Your task to perform on an android device: turn off notifications in google photos Image 0: 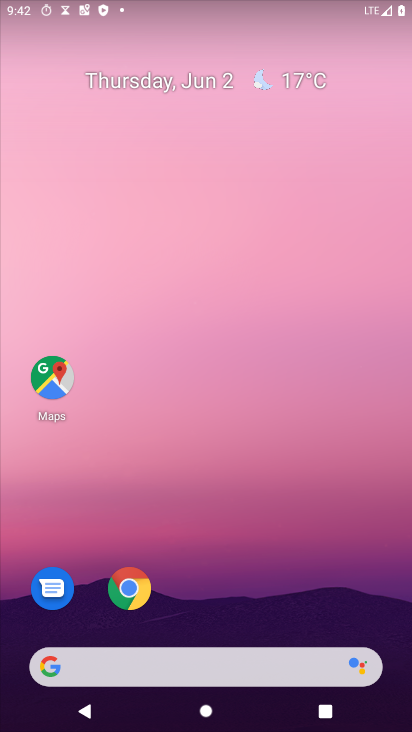
Step 0: drag from (197, 619) to (257, 14)
Your task to perform on an android device: turn off notifications in google photos Image 1: 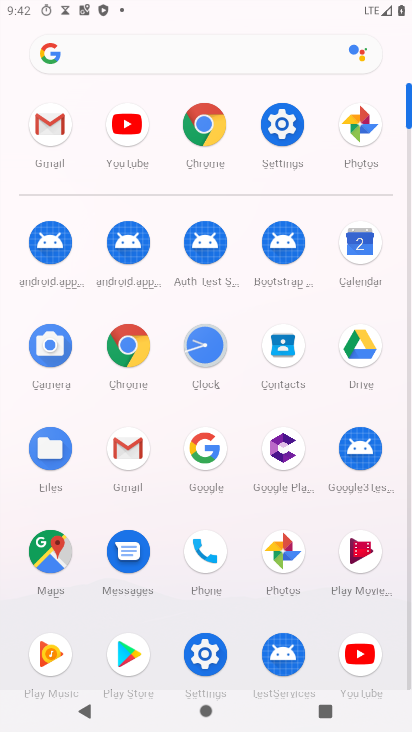
Step 1: click (282, 552)
Your task to perform on an android device: turn off notifications in google photos Image 2: 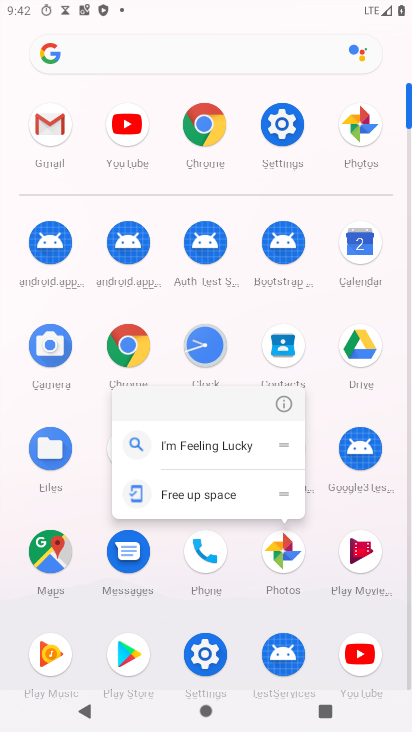
Step 2: click (285, 404)
Your task to perform on an android device: turn off notifications in google photos Image 3: 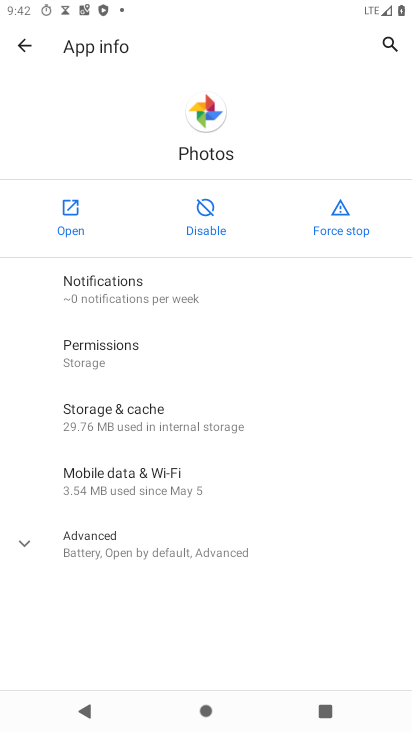
Step 3: click (155, 283)
Your task to perform on an android device: turn off notifications in google photos Image 4: 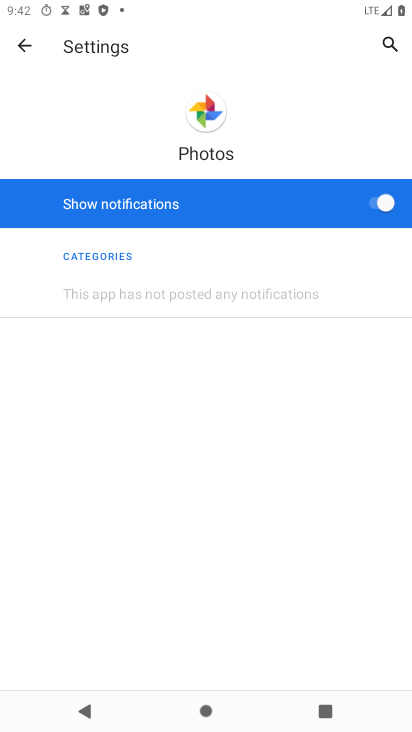
Step 4: click (383, 197)
Your task to perform on an android device: turn off notifications in google photos Image 5: 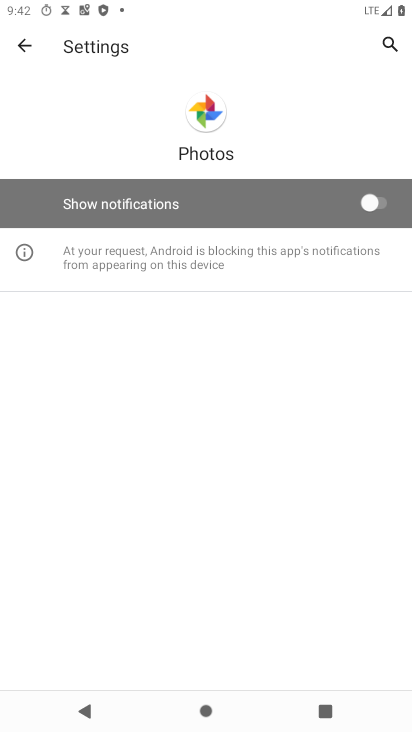
Step 5: task complete